Your task to perform on an android device: turn on javascript in the chrome app Image 0: 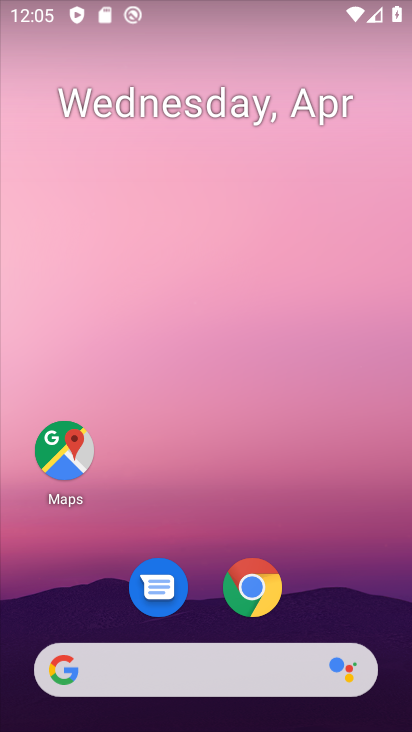
Step 0: click (258, 587)
Your task to perform on an android device: turn on javascript in the chrome app Image 1: 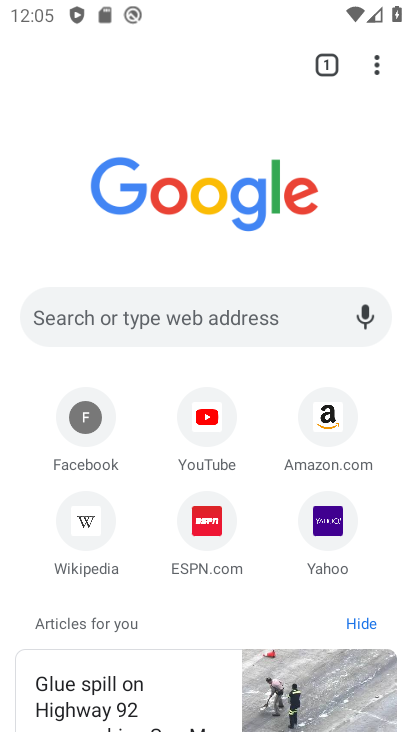
Step 1: click (375, 69)
Your task to perform on an android device: turn on javascript in the chrome app Image 2: 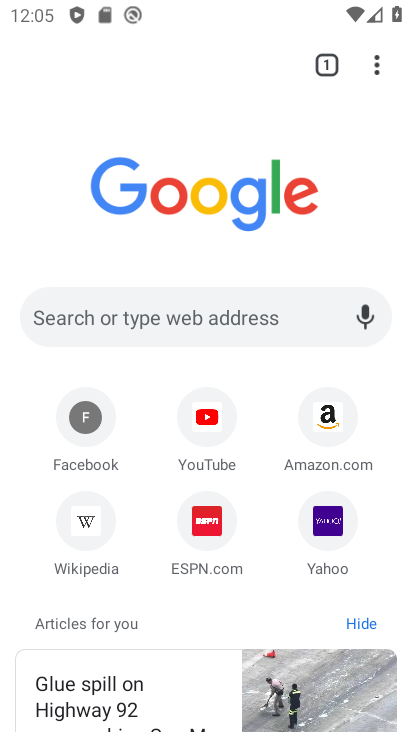
Step 2: click (375, 69)
Your task to perform on an android device: turn on javascript in the chrome app Image 3: 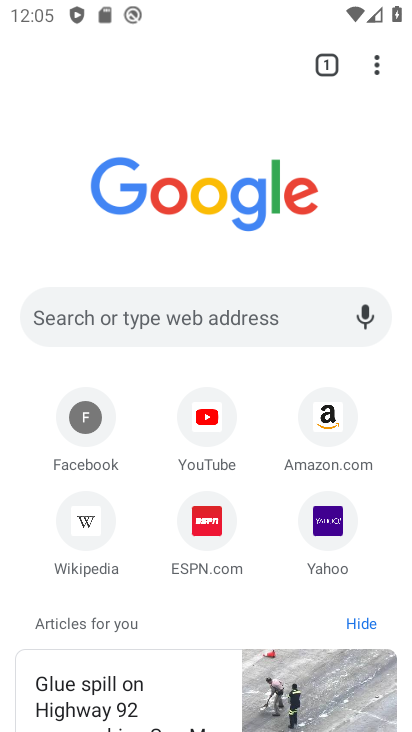
Step 3: click (145, 542)
Your task to perform on an android device: turn on javascript in the chrome app Image 4: 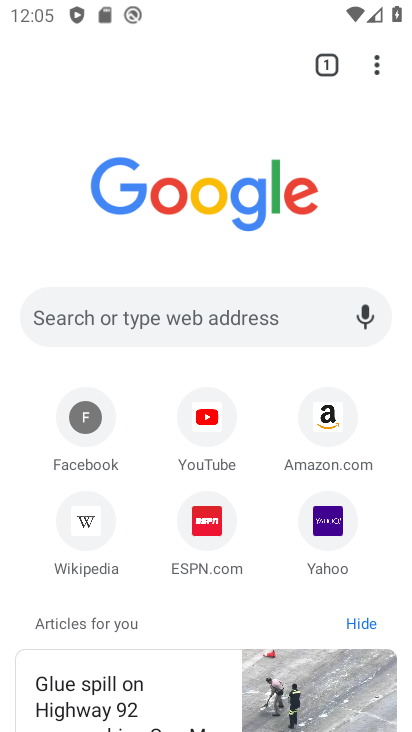
Step 4: click (376, 62)
Your task to perform on an android device: turn on javascript in the chrome app Image 5: 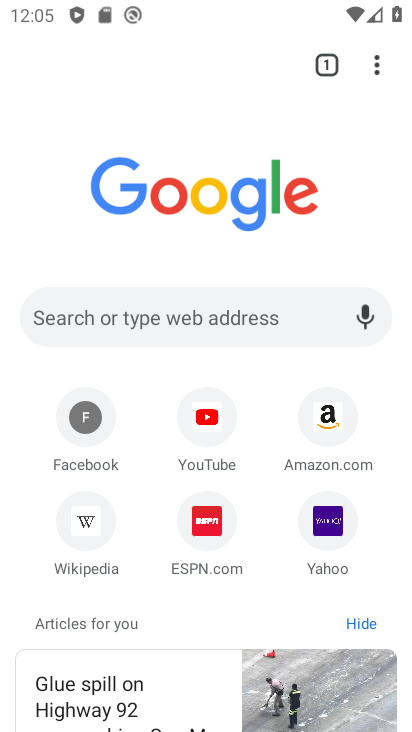
Step 5: click (148, 544)
Your task to perform on an android device: turn on javascript in the chrome app Image 6: 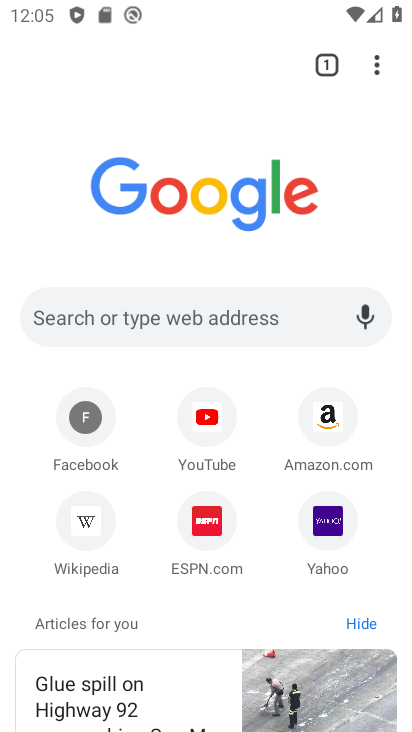
Step 6: click (377, 66)
Your task to perform on an android device: turn on javascript in the chrome app Image 7: 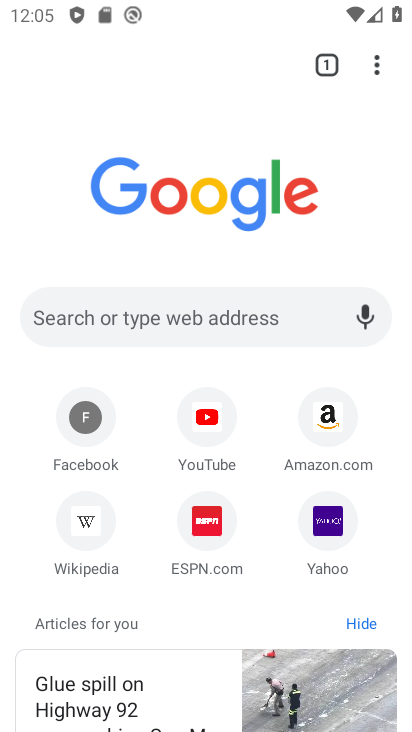
Step 7: click (381, 63)
Your task to perform on an android device: turn on javascript in the chrome app Image 8: 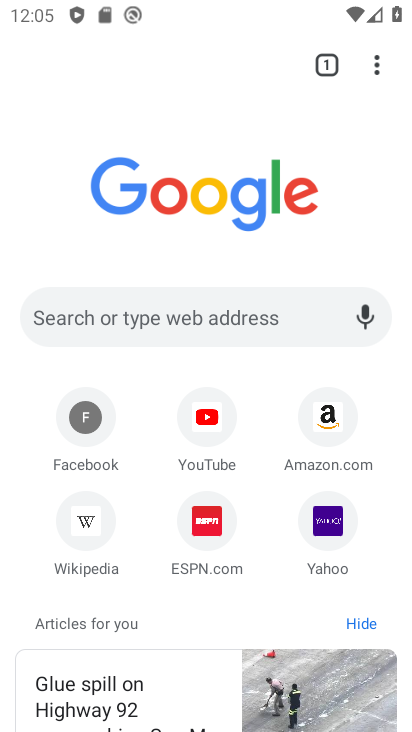
Step 8: drag from (377, 61) to (139, 560)
Your task to perform on an android device: turn on javascript in the chrome app Image 9: 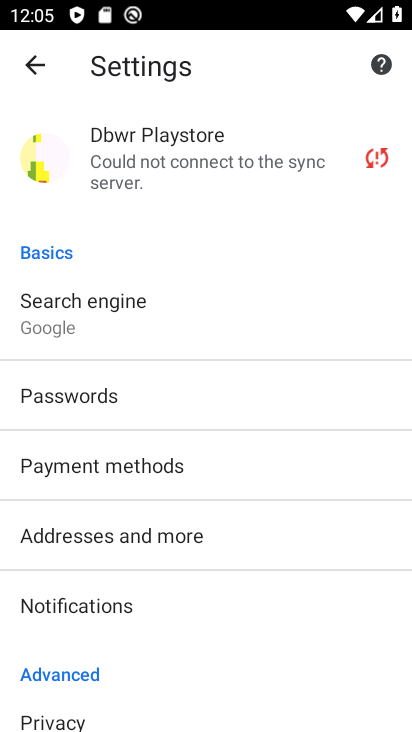
Step 9: drag from (103, 602) to (138, 415)
Your task to perform on an android device: turn on javascript in the chrome app Image 10: 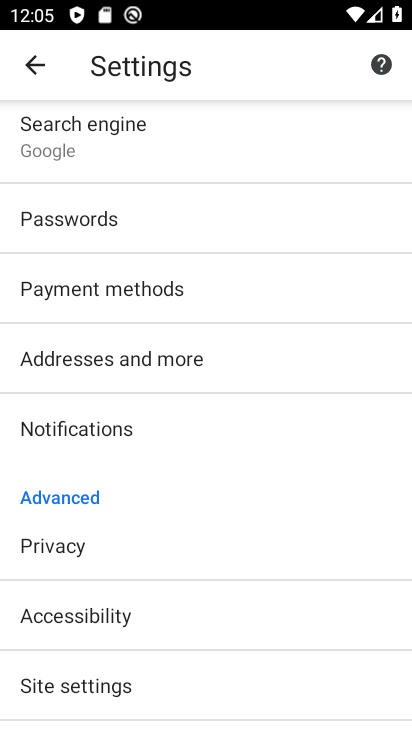
Step 10: click (58, 689)
Your task to perform on an android device: turn on javascript in the chrome app Image 11: 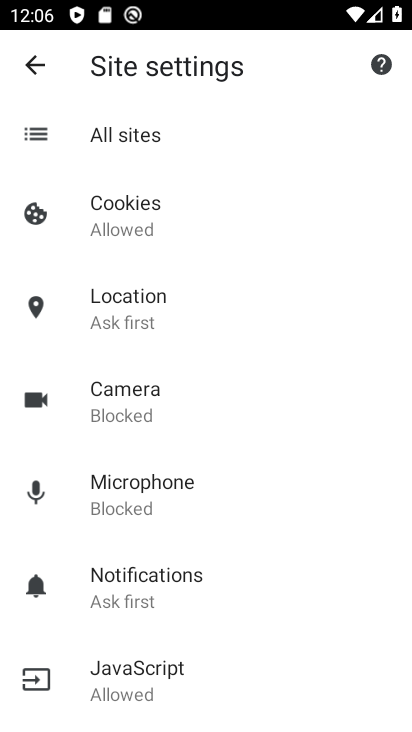
Step 11: click (119, 665)
Your task to perform on an android device: turn on javascript in the chrome app Image 12: 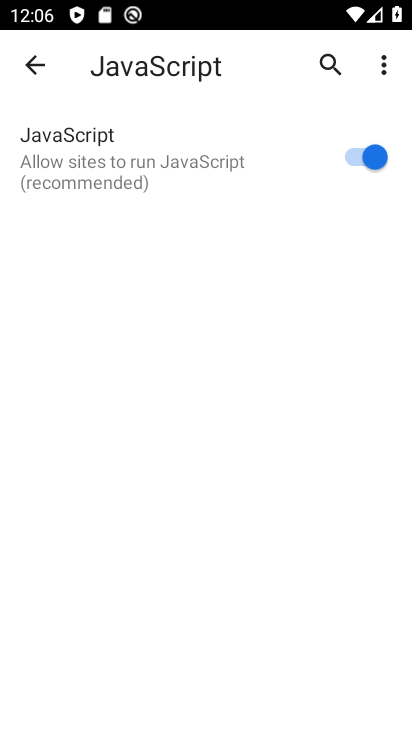
Step 12: task complete